Your task to perform on an android device: What's the weather going to be tomorrow? Image 0: 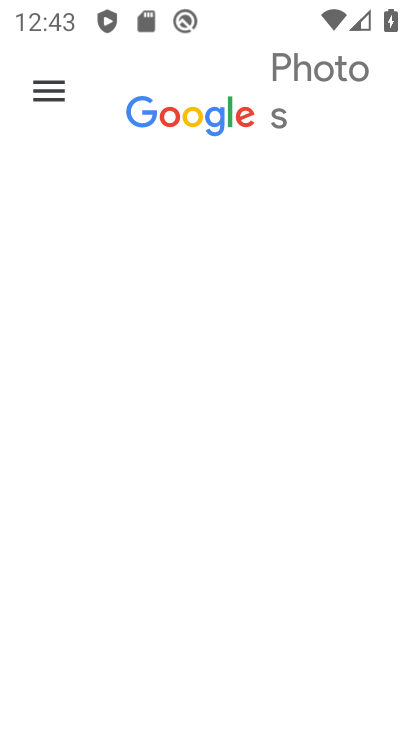
Step 0: press home button
Your task to perform on an android device: What's the weather going to be tomorrow? Image 1: 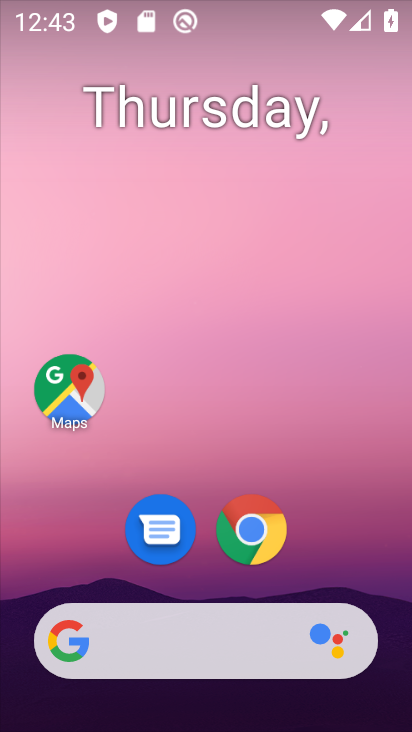
Step 1: drag from (365, 570) to (310, 175)
Your task to perform on an android device: What's the weather going to be tomorrow? Image 2: 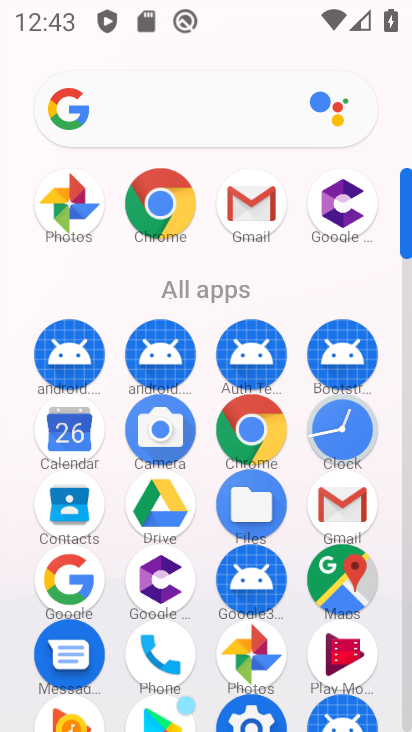
Step 2: click (227, 434)
Your task to perform on an android device: What's the weather going to be tomorrow? Image 3: 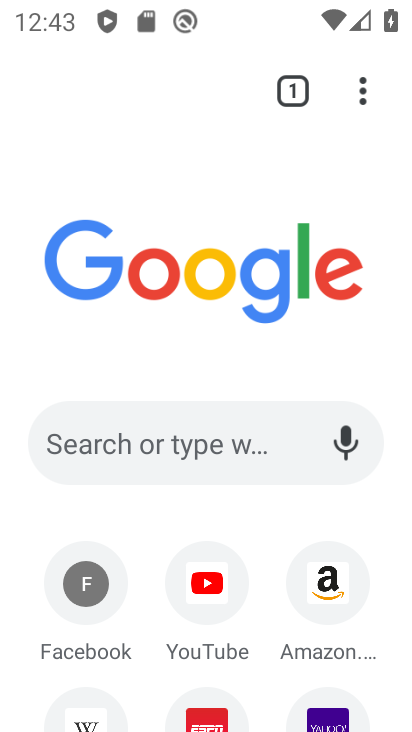
Step 3: click (226, 444)
Your task to perform on an android device: What's the weather going to be tomorrow? Image 4: 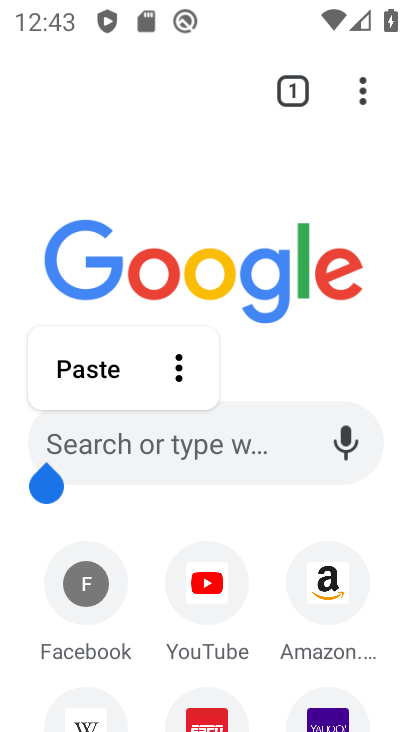
Step 4: click (195, 457)
Your task to perform on an android device: What's the weather going to be tomorrow? Image 5: 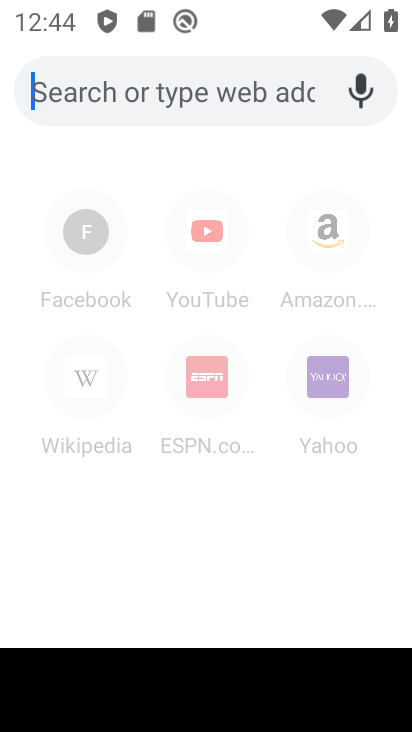
Step 5: type "what's the weather going to be tomorrow"
Your task to perform on an android device: What's the weather going to be tomorrow? Image 6: 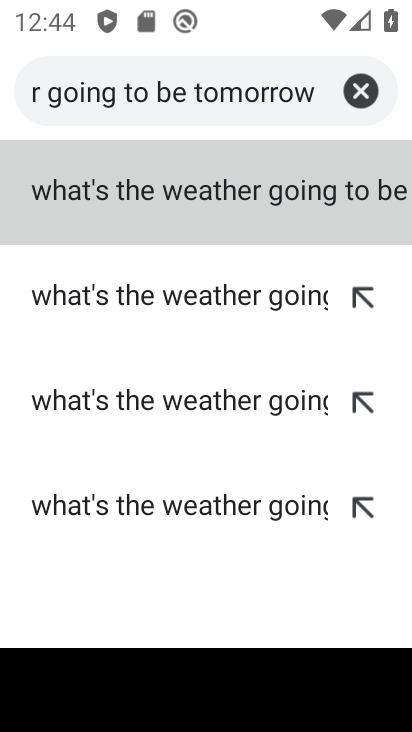
Step 6: click (207, 228)
Your task to perform on an android device: What's the weather going to be tomorrow? Image 7: 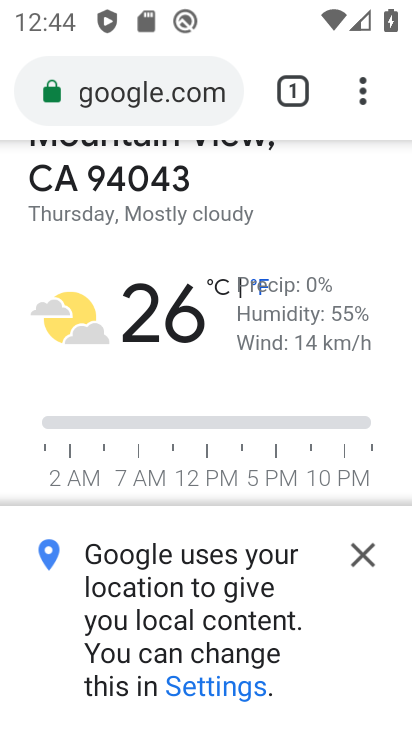
Step 7: click (367, 579)
Your task to perform on an android device: What's the weather going to be tomorrow? Image 8: 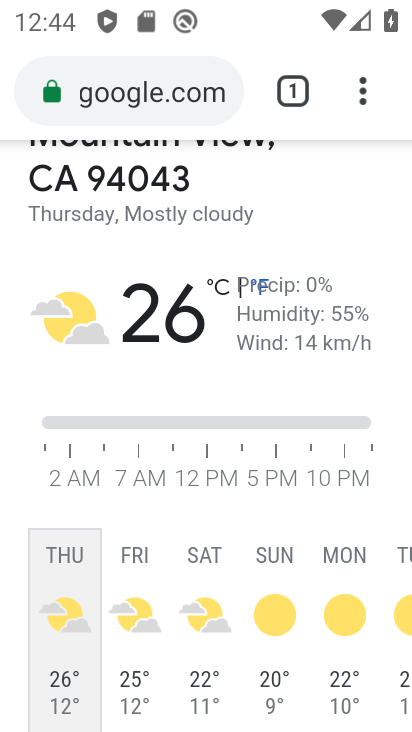
Step 8: task complete